Your task to perform on an android device: Open the Play Movies app and select the watchlist tab. Image 0: 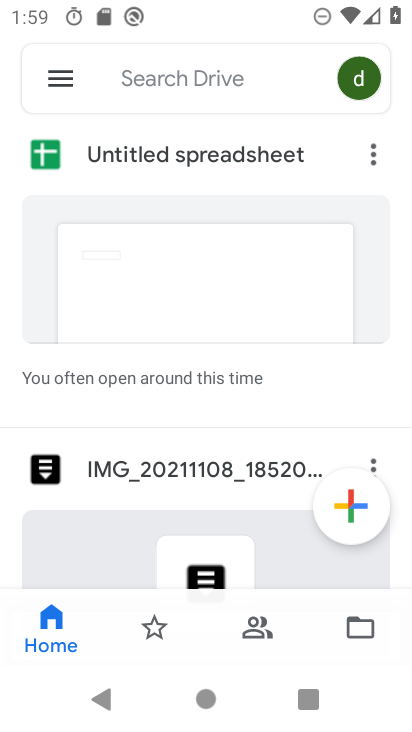
Step 0: press home button
Your task to perform on an android device: Open the Play Movies app and select the watchlist tab. Image 1: 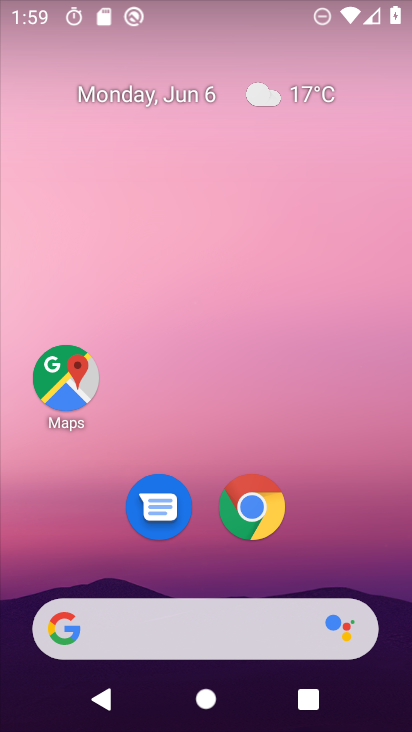
Step 1: drag from (280, 666) to (176, 219)
Your task to perform on an android device: Open the Play Movies app and select the watchlist tab. Image 2: 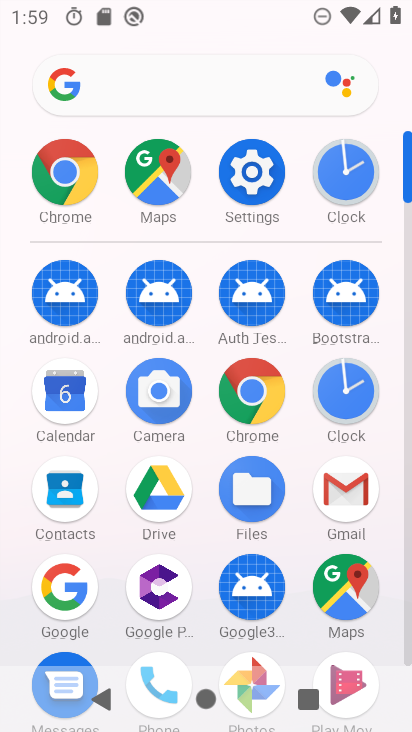
Step 2: click (338, 649)
Your task to perform on an android device: Open the Play Movies app and select the watchlist tab. Image 3: 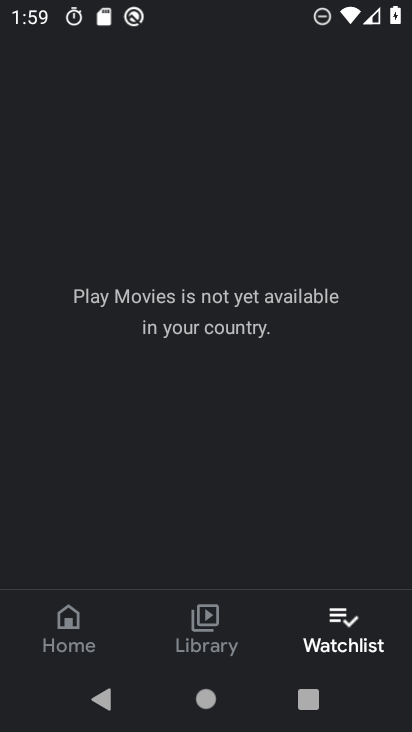
Step 3: click (343, 636)
Your task to perform on an android device: Open the Play Movies app and select the watchlist tab. Image 4: 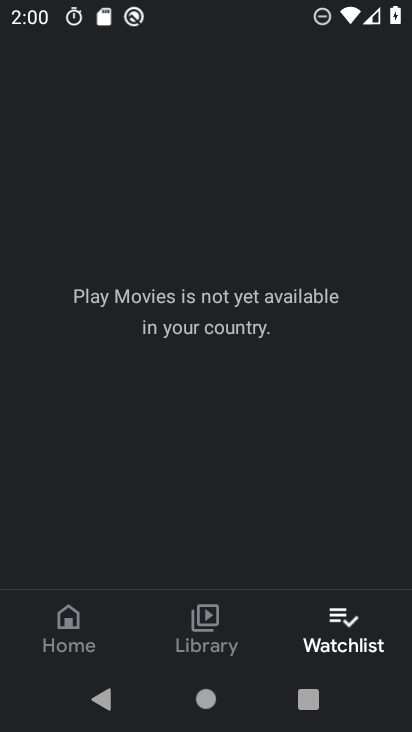
Step 4: task complete